Your task to perform on an android device: Go to eBay Image 0: 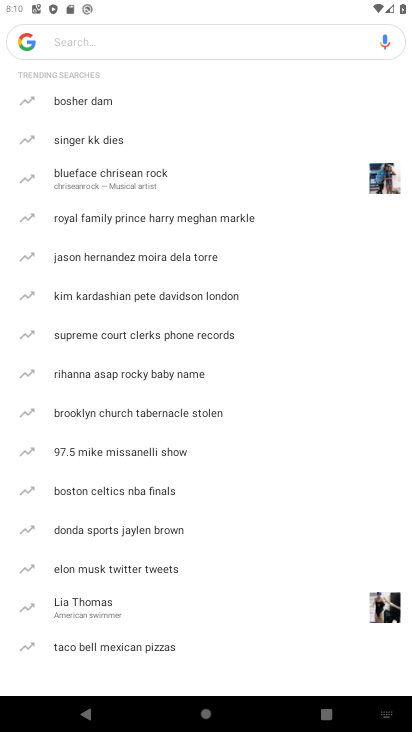
Step 0: press back button
Your task to perform on an android device: Go to eBay Image 1: 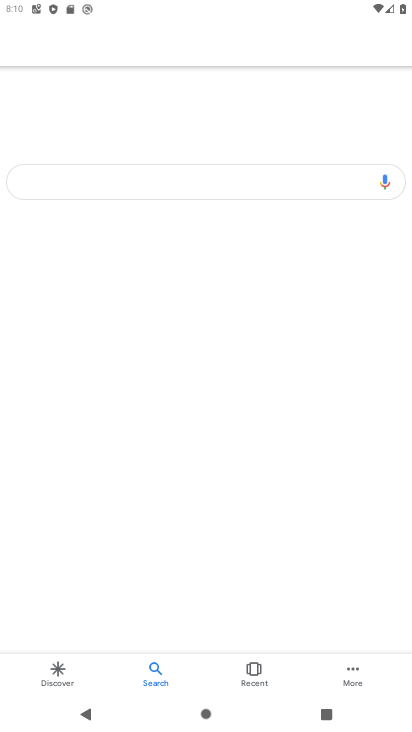
Step 1: press back button
Your task to perform on an android device: Go to eBay Image 2: 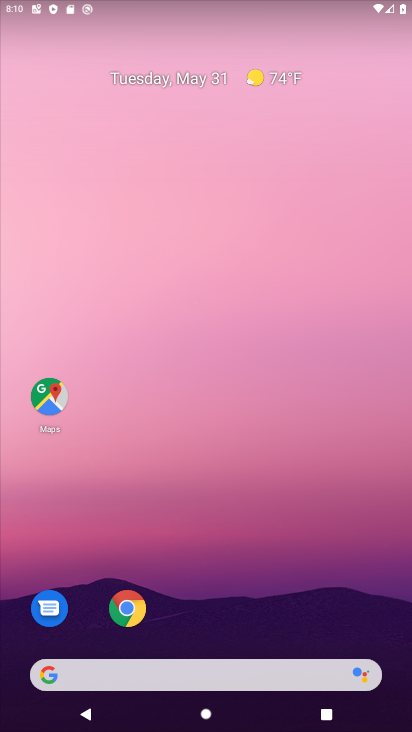
Step 2: click (133, 610)
Your task to perform on an android device: Go to eBay Image 3: 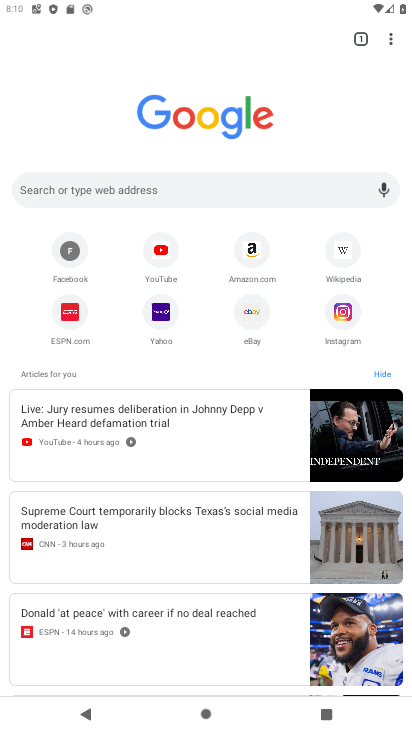
Step 3: click (259, 323)
Your task to perform on an android device: Go to eBay Image 4: 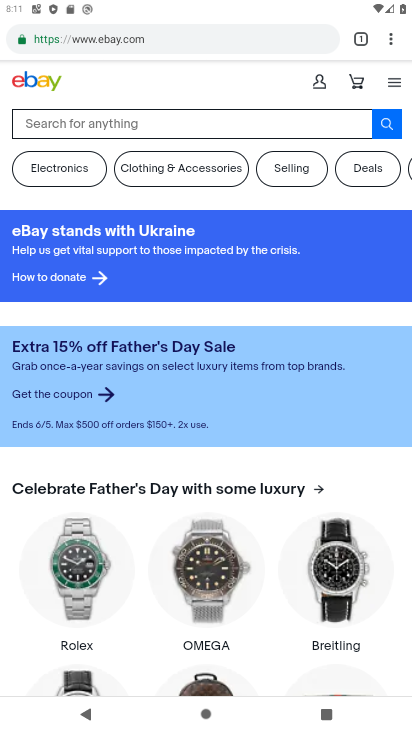
Step 4: task complete